Your task to perform on an android device: Play the last video I watched on Youtube Image 0: 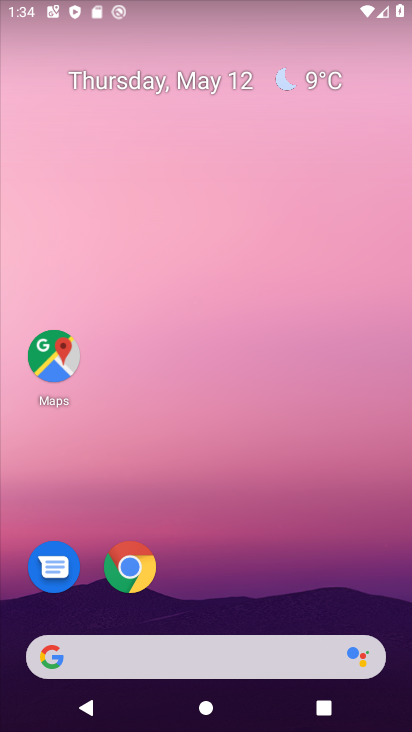
Step 0: drag from (236, 599) to (266, 21)
Your task to perform on an android device: Play the last video I watched on Youtube Image 1: 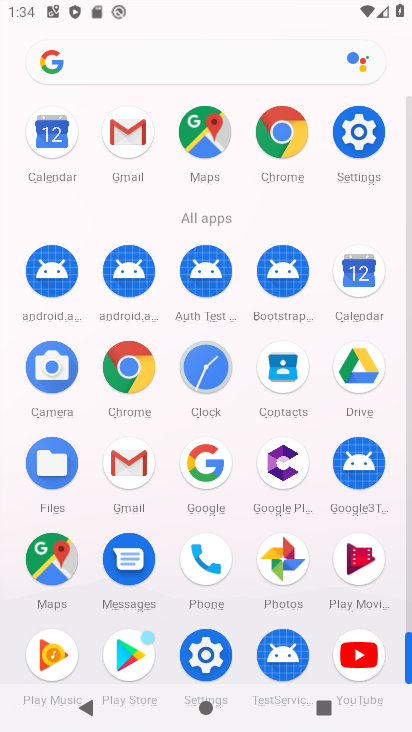
Step 1: click (344, 669)
Your task to perform on an android device: Play the last video I watched on Youtube Image 2: 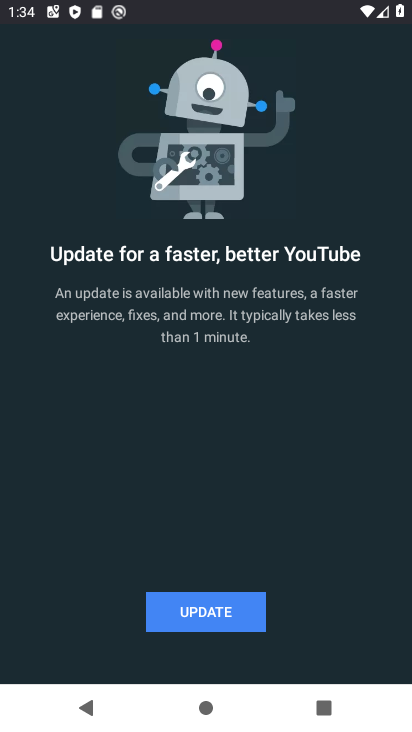
Step 2: press back button
Your task to perform on an android device: Play the last video I watched on Youtube Image 3: 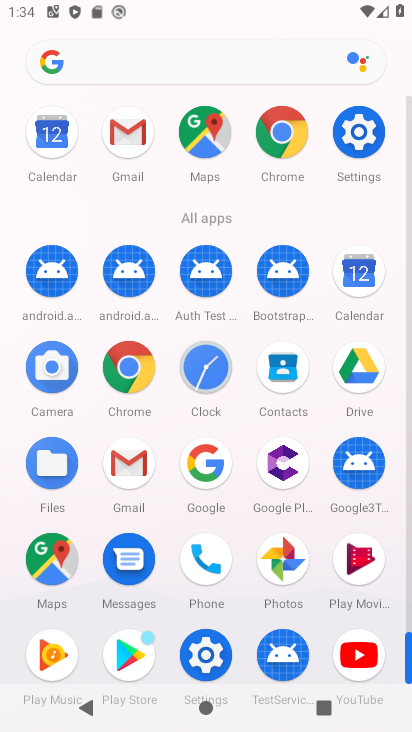
Step 3: click (354, 676)
Your task to perform on an android device: Play the last video I watched on Youtube Image 4: 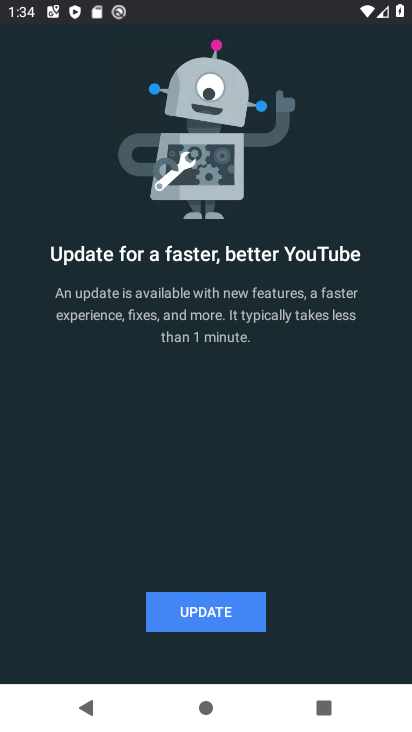
Step 4: click (139, 609)
Your task to perform on an android device: Play the last video I watched on Youtube Image 5: 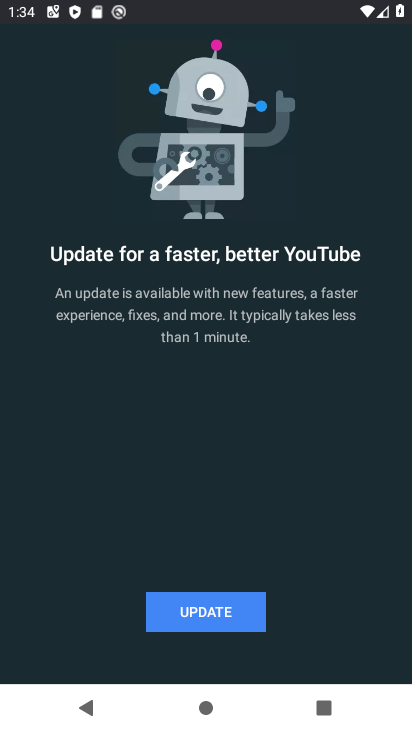
Step 5: click (177, 608)
Your task to perform on an android device: Play the last video I watched on Youtube Image 6: 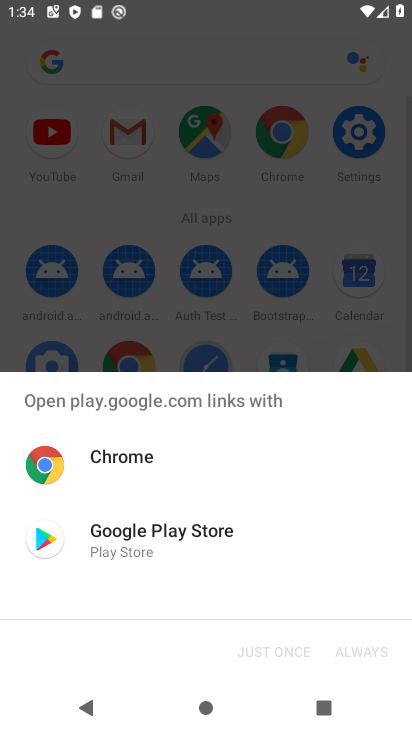
Step 6: click (131, 536)
Your task to perform on an android device: Play the last video I watched on Youtube Image 7: 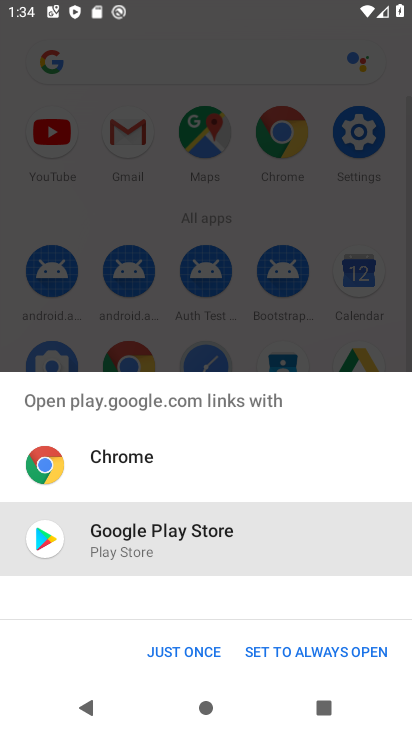
Step 7: click (318, 649)
Your task to perform on an android device: Play the last video I watched on Youtube Image 8: 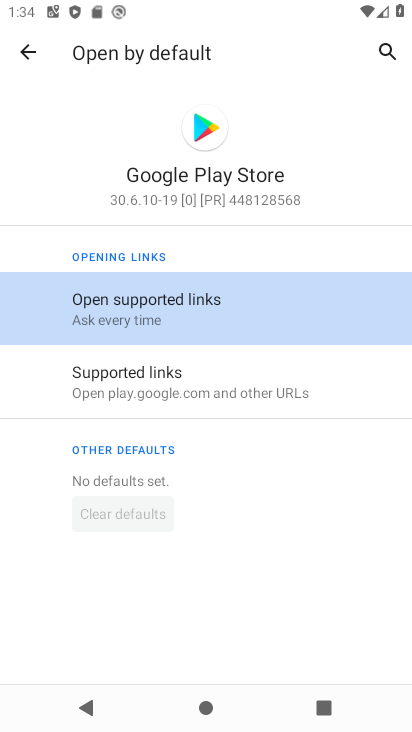
Step 8: click (150, 316)
Your task to perform on an android device: Play the last video I watched on Youtube Image 9: 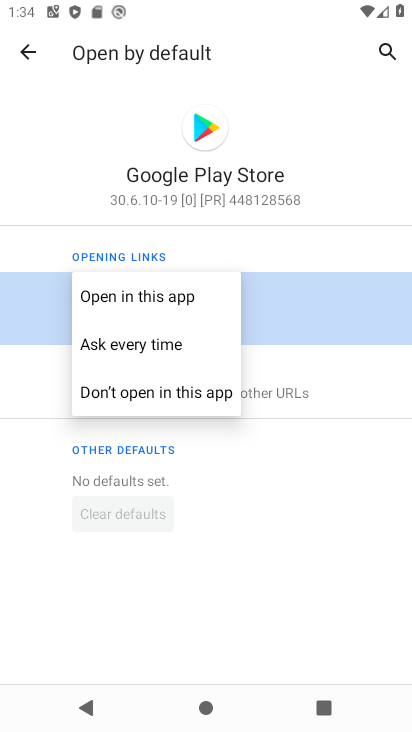
Step 9: click (121, 353)
Your task to perform on an android device: Play the last video I watched on Youtube Image 10: 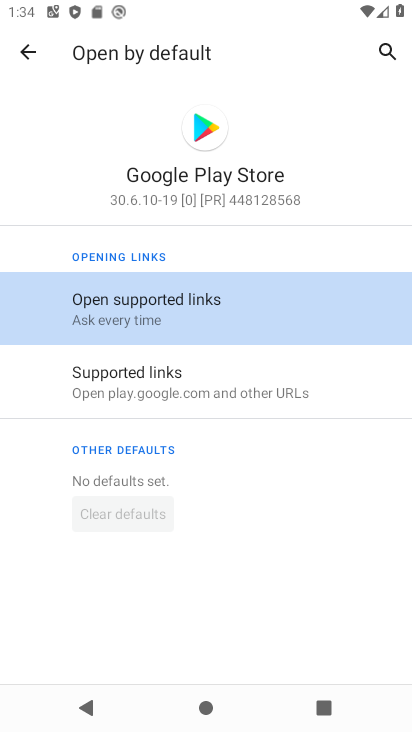
Step 10: click (23, 55)
Your task to perform on an android device: Play the last video I watched on Youtube Image 11: 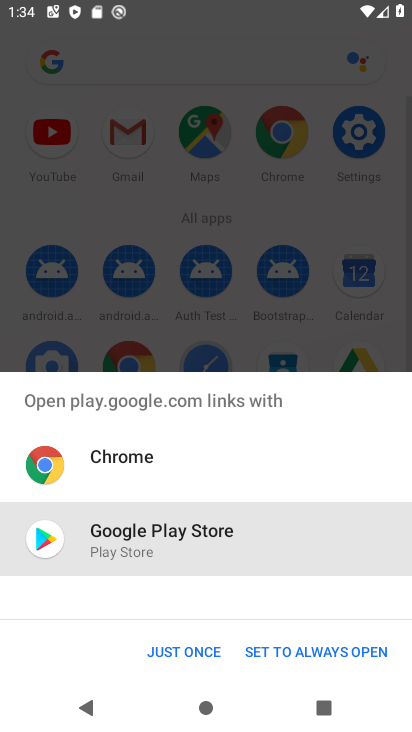
Step 11: click (299, 660)
Your task to perform on an android device: Play the last video I watched on Youtube Image 12: 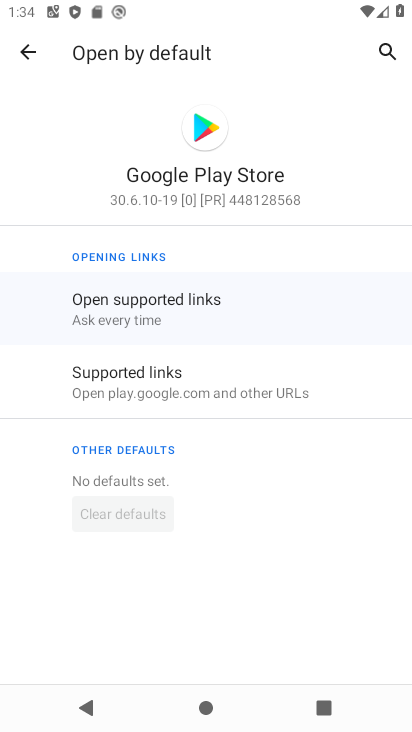
Step 12: click (165, 307)
Your task to perform on an android device: Play the last video I watched on Youtube Image 13: 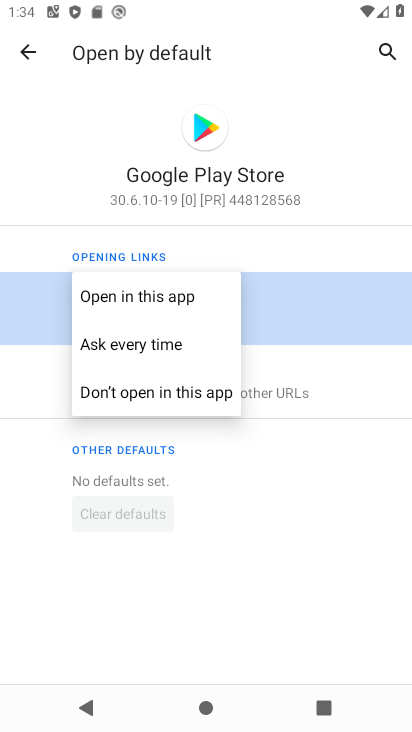
Step 13: click (162, 295)
Your task to perform on an android device: Play the last video I watched on Youtube Image 14: 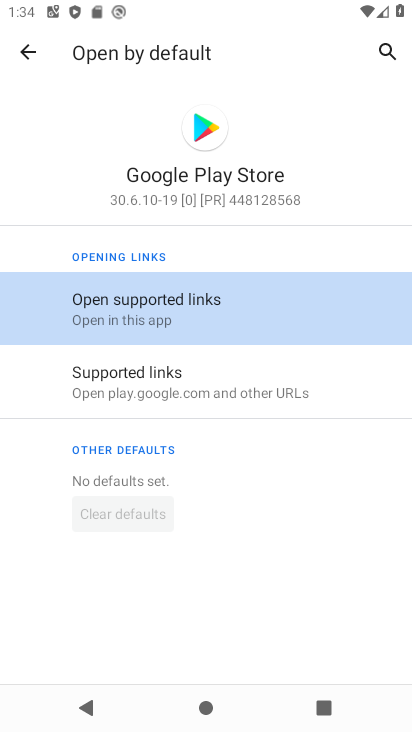
Step 14: click (29, 54)
Your task to perform on an android device: Play the last video I watched on Youtube Image 15: 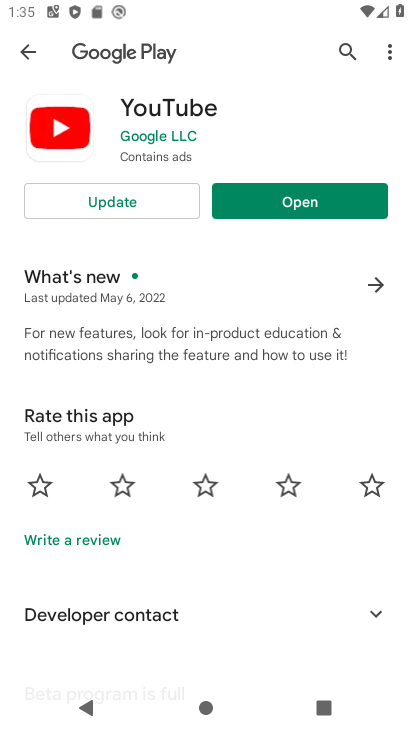
Step 15: click (111, 189)
Your task to perform on an android device: Play the last video I watched on Youtube Image 16: 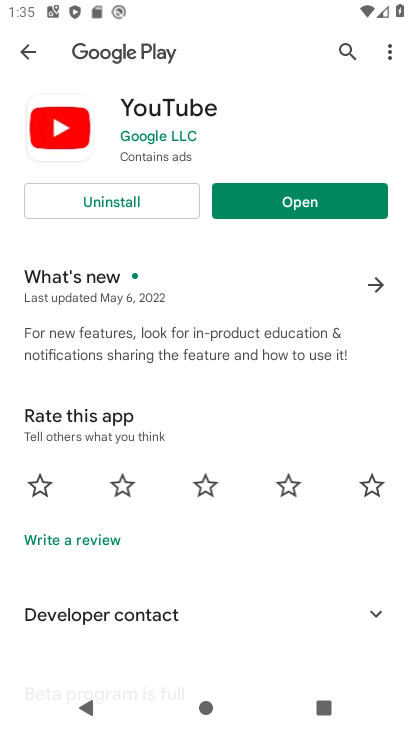
Step 16: click (284, 212)
Your task to perform on an android device: Play the last video I watched on Youtube Image 17: 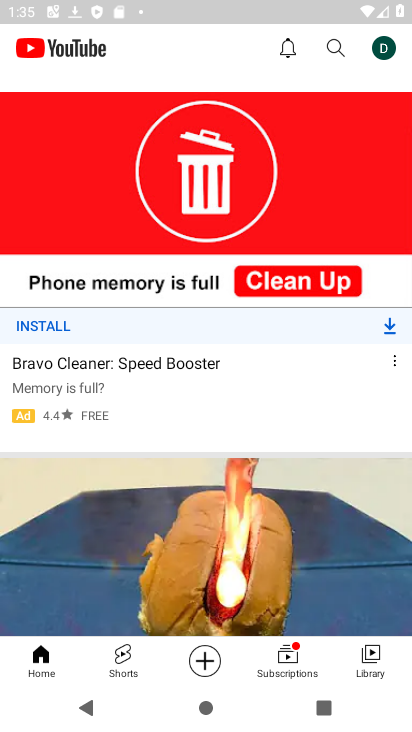
Step 17: click (386, 639)
Your task to perform on an android device: Play the last video I watched on Youtube Image 18: 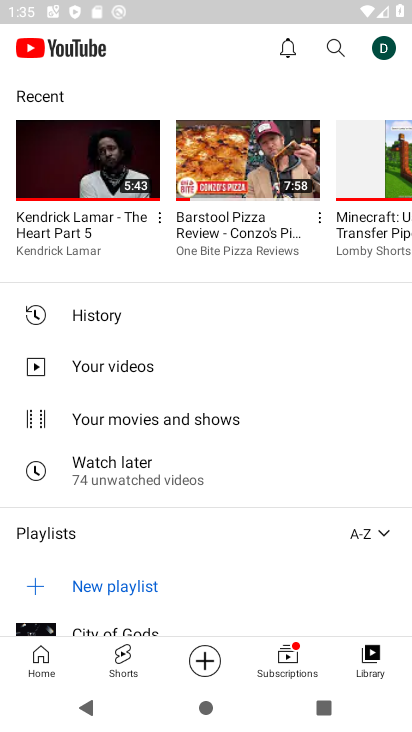
Step 18: task complete